Your task to perform on an android device: turn off location Image 0: 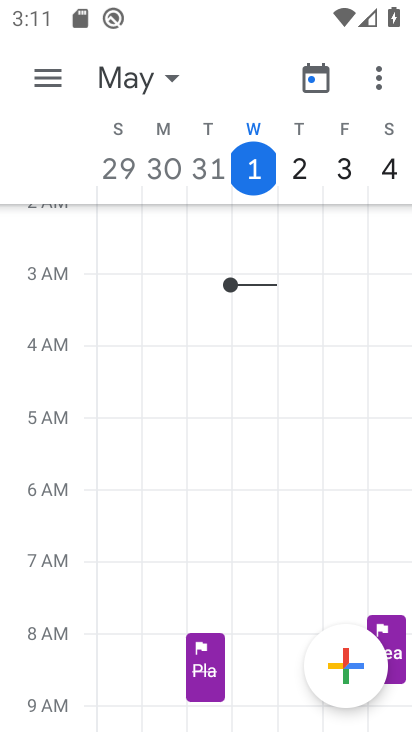
Step 0: press home button
Your task to perform on an android device: turn off location Image 1: 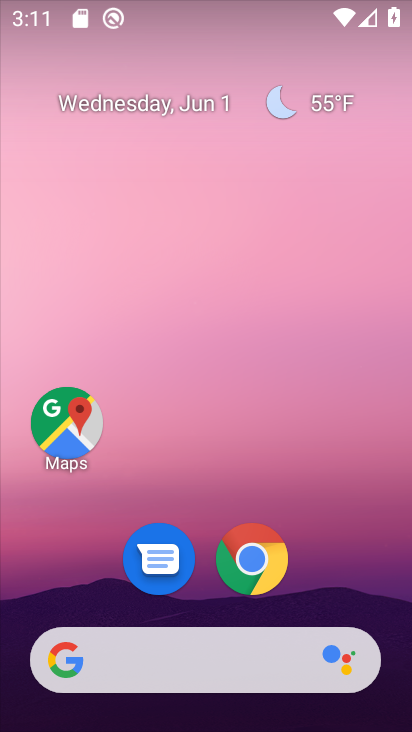
Step 1: drag from (203, 597) to (214, 362)
Your task to perform on an android device: turn off location Image 2: 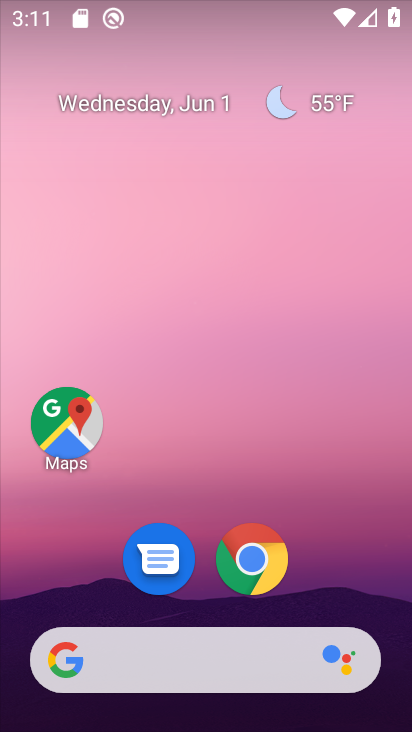
Step 2: drag from (213, 604) to (214, 261)
Your task to perform on an android device: turn off location Image 3: 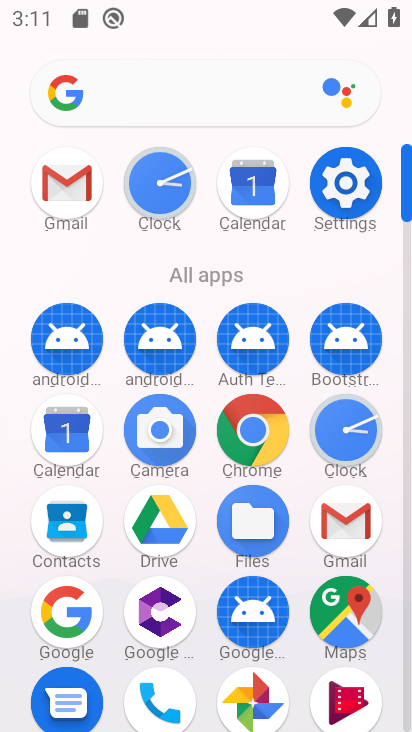
Step 3: click (359, 199)
Your task to perform on an android device: turn off location Image 4: 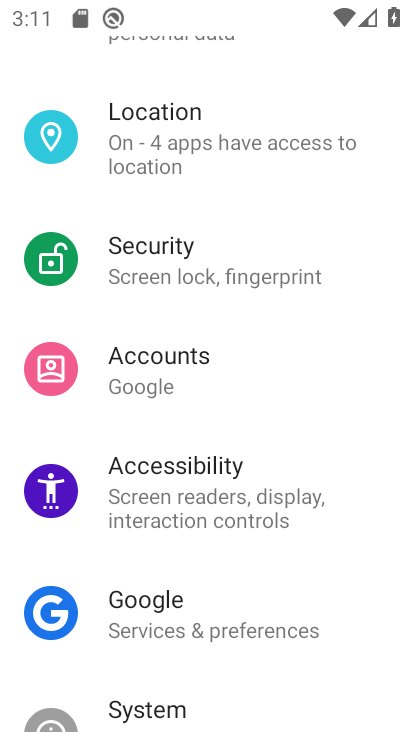
Step 4: click (171, 135)
Your task to perform on an android device: turn off location Image 5: 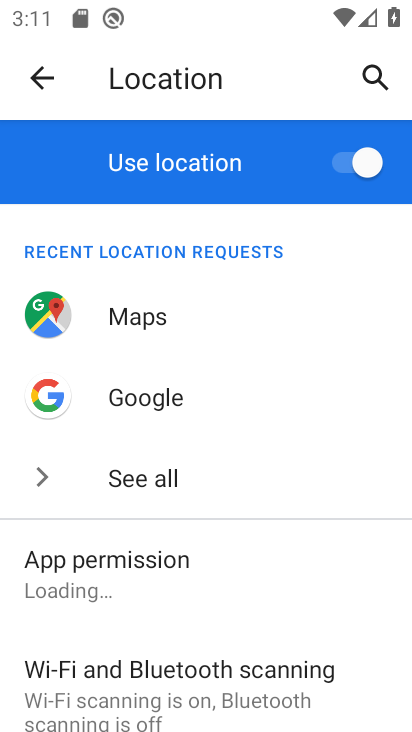
Step 5: click (329, 165)
Your task to perform on an android device: turn off location Image 6: 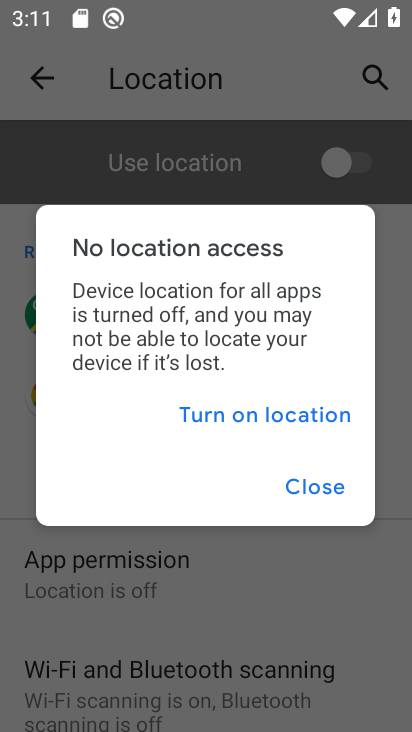
Step 6: click (328, 494)
Your task to perform on an android device: turn off location Image 7: 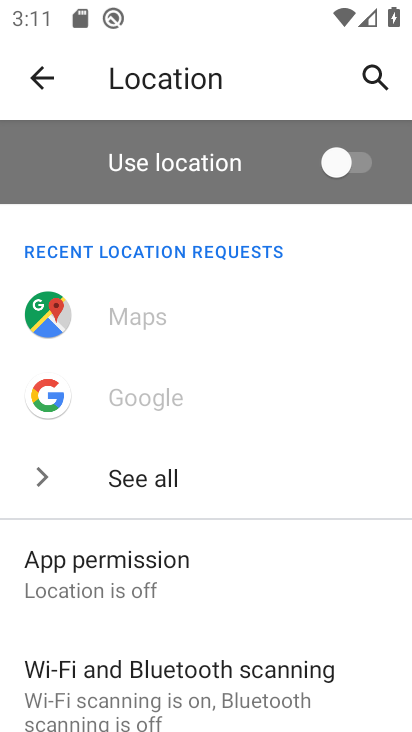
Step 7: task complete